Your task to perform on an android device: visit the assistant section in the google photos Image 0: 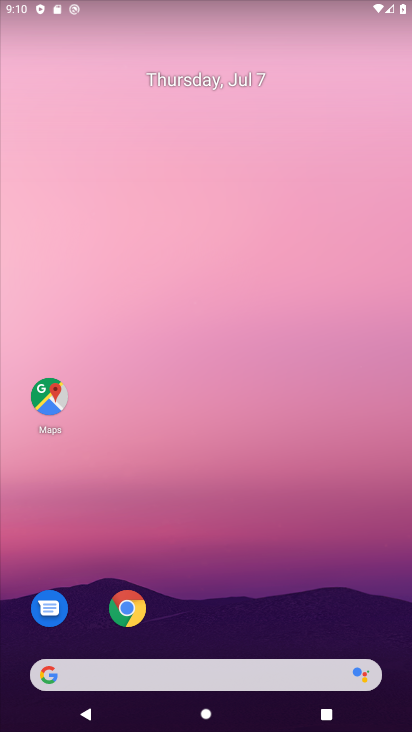
Step 0: drag from (228, 628) to (208, 46)
Your task to perform on an android device: visit the assistant section in the google photos Image 1: 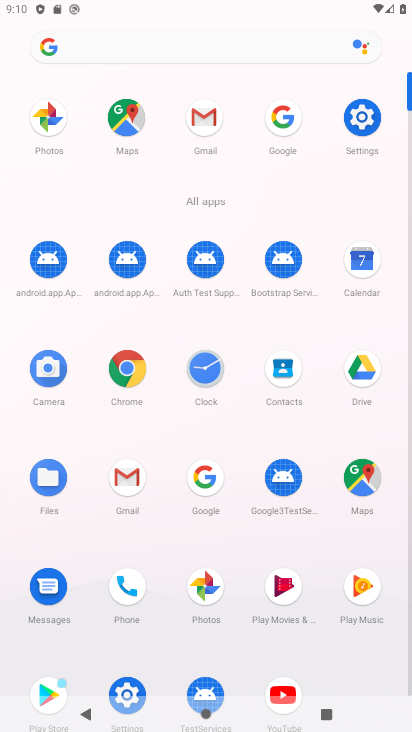
Step 1: click (207, 588)
Your task to perform on an android device: visit the assistant section in the google photos Image 2: 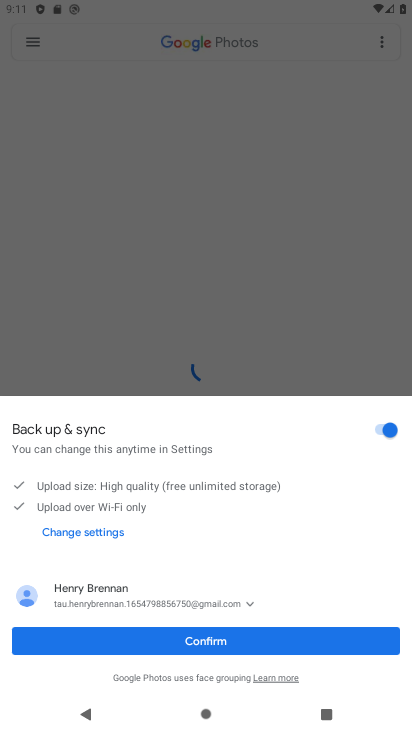
Step 2: click (224, 635)
Your task to perform on an android device: visit the assistant section in the google photos Image 3: 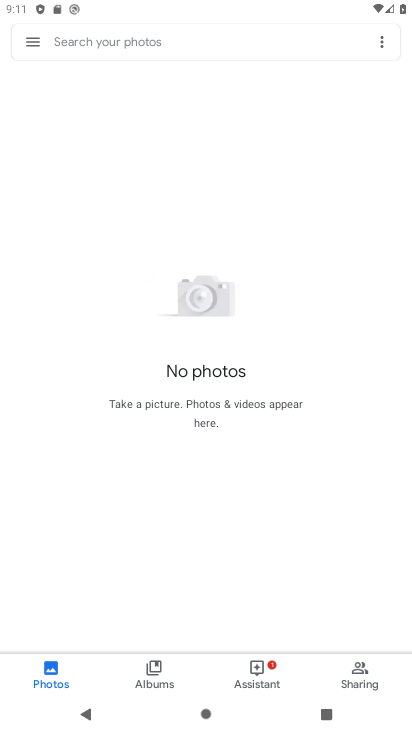
Step 3: click (244, 676)
Your task to perform on an android device: visit the assistant section in the google photos Image 4: 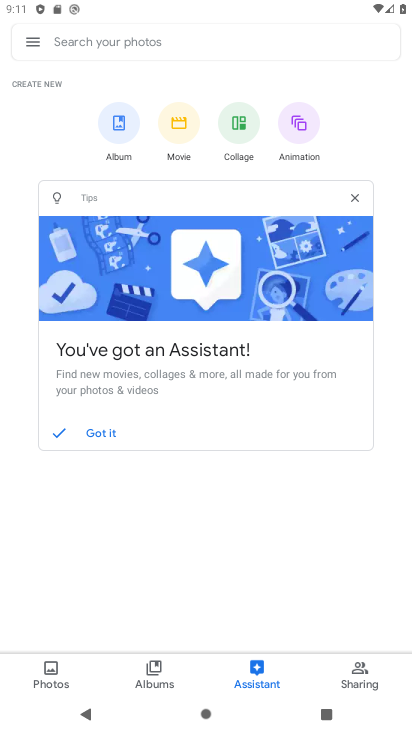
Step 4: task complete